Your task to perform on an android device: choose inbox layout in the gmail app Image 0: 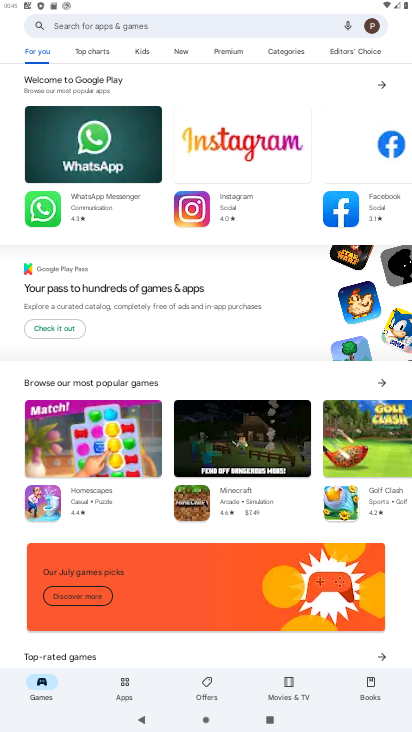
Step 0: press home button
Your task to perform on an android device: choose inbox layout in the gmail app Image 1: 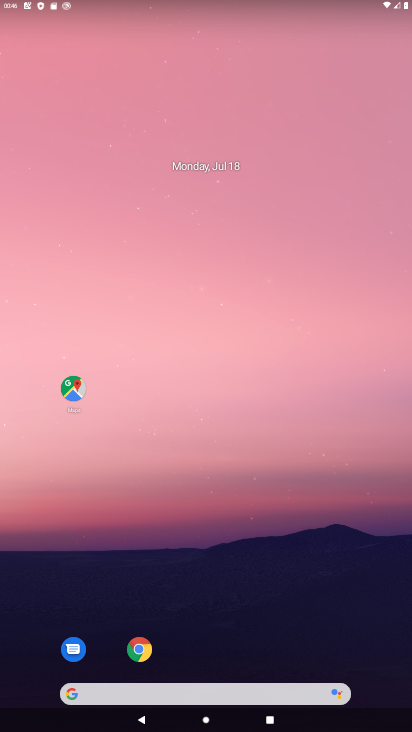
Step 1: drag from (174, 630) to (173, 221)
Your task to perform on an android device: choose inbox layout in the gmail app Image 2: 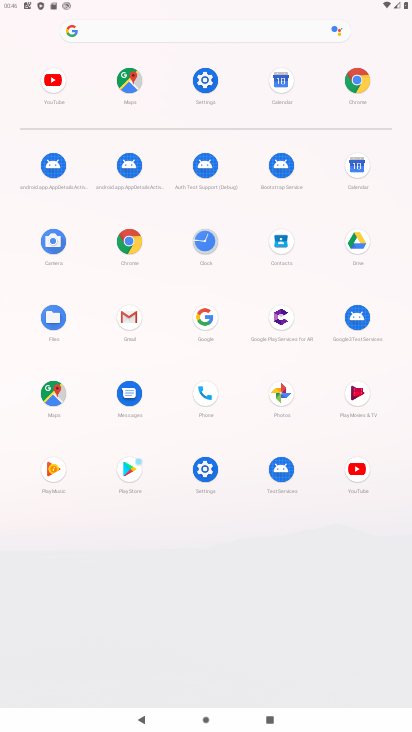
Step 2: click (127, 319)
Your task to perform on an android device: choose inbox layout in the gmail app Image 3: 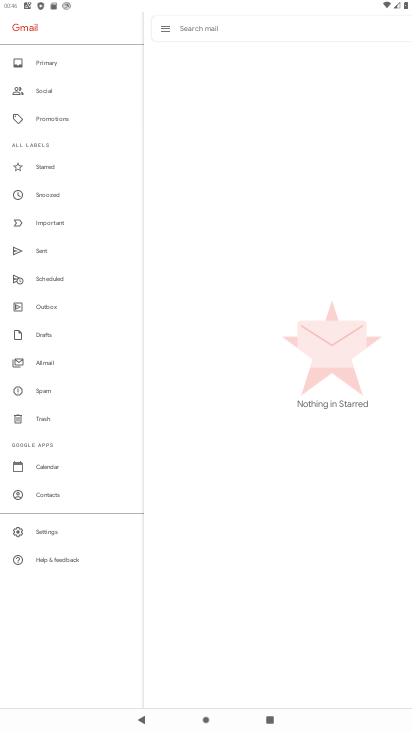
Step 3: click (46, 535)
Your task to perform on an android device: choose inbox layout in the gmail app Image 4: 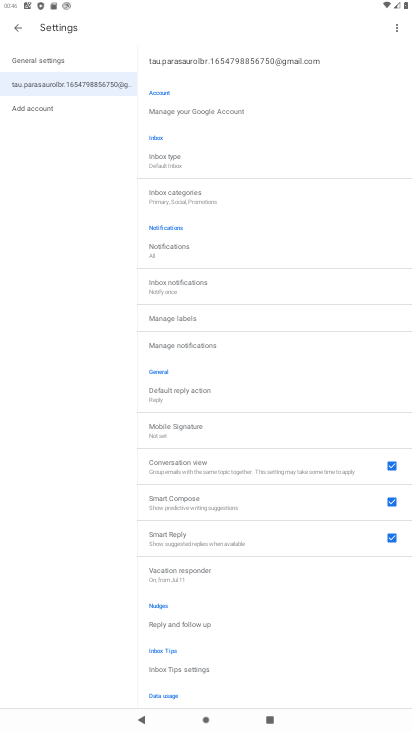
Step 4: click (189, 166)
Your task to perform on an android device: choose inbox layout in the gmail app Image 5: 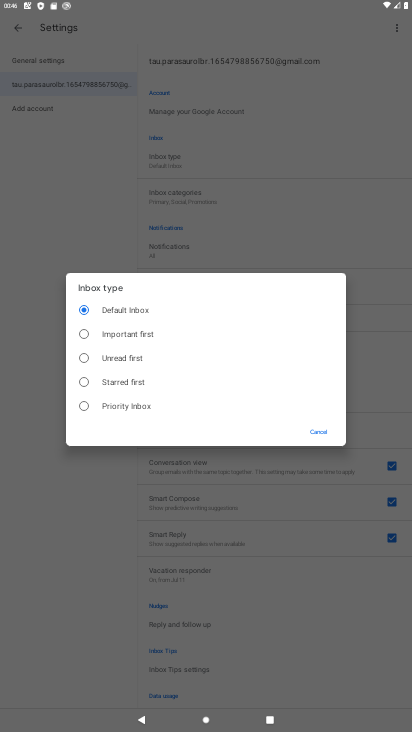
Step 5: click (86, 412)
Your task to perform on an android device: choose inbox layout in the gmail app Image 6: 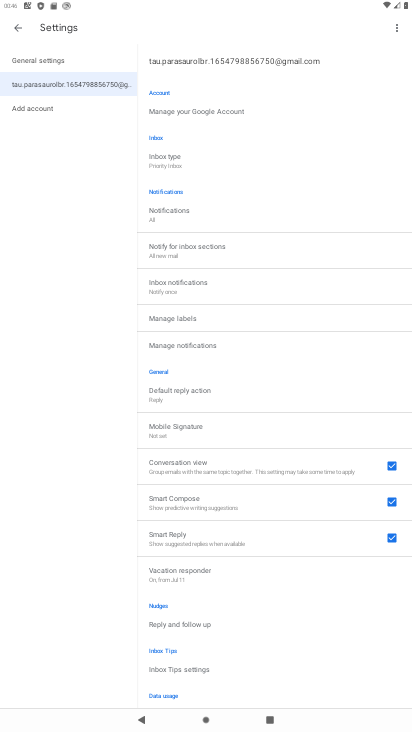
Step 6: task complete